Your task to perform on an android device: Open Google Chrome and open the bookmarks view Image 0: 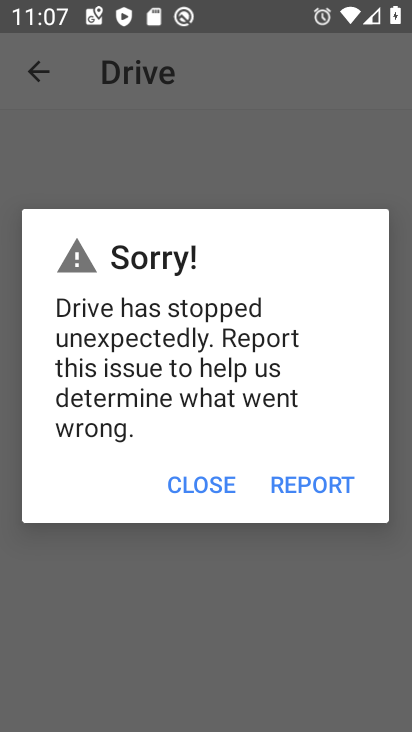
Step 0: press home button
Your task to perform on an android device: Open Google Chrome and open the bookmarks view Image 1: 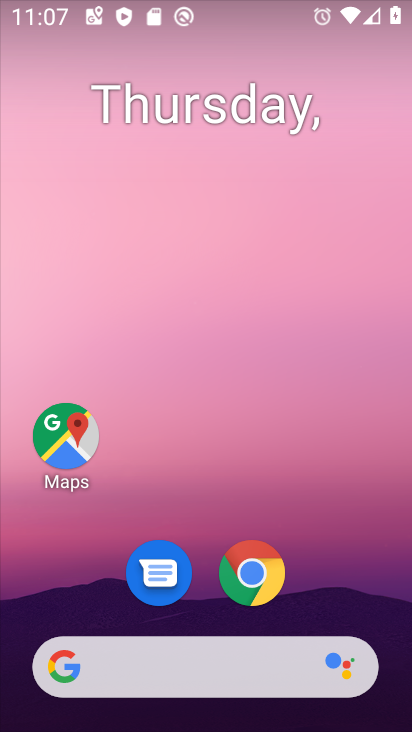
Step 1: click (258, 572)
Your task to perform on an android device: Open Google Chrome and open the bookmarks view Image 2: 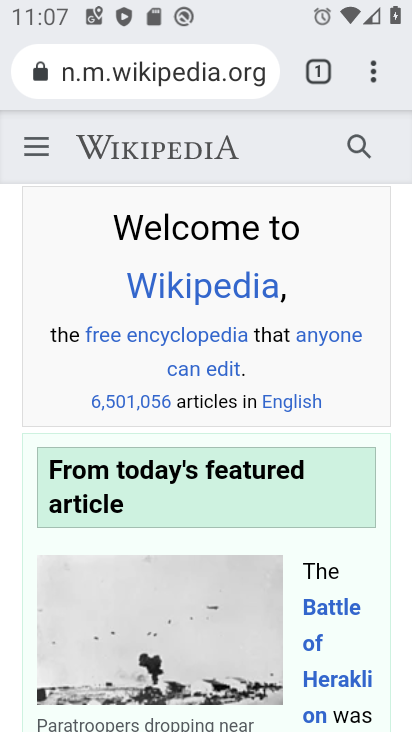
Step 2: task complete